Your task to perform on an android device: Open Reddit.com Image 0: 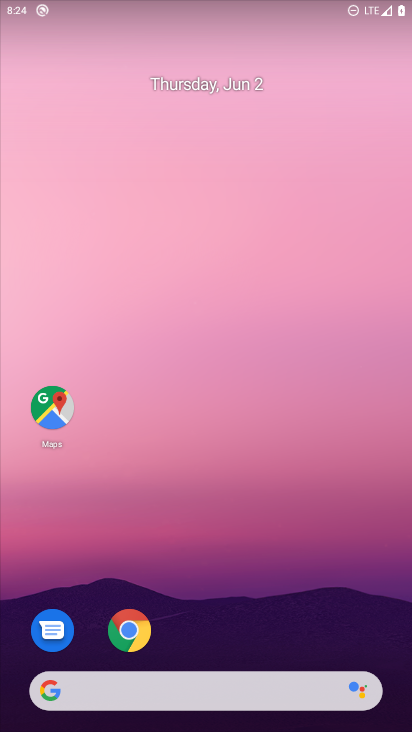
Step 0: click (142, 693)
Your task to perform on an android device: Open Reddit.com Image 1: 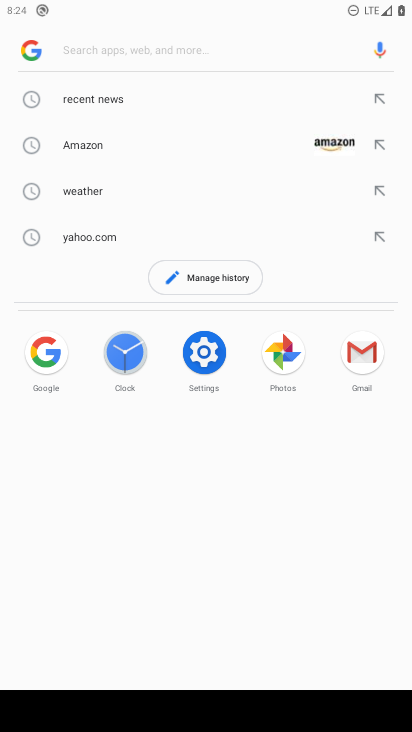
Step 1: type "reddit.com"
Your task to perform on an android device: Open Reddit.com Image 2: 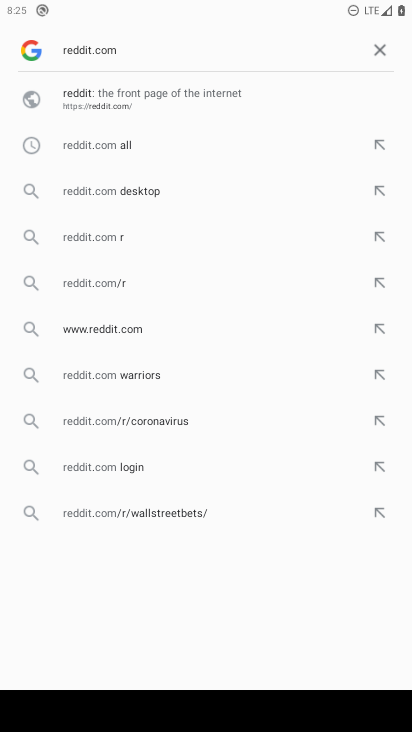
Step 2: click (123, 104)
Your task to perform on an android device: Open Reddit.com Image 3: 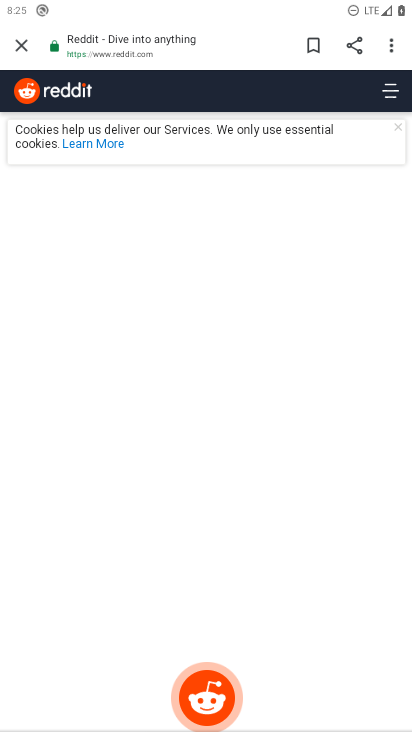
Step 3: task complete